Your task to perform on an android device: turn on translation in the chrome app Image 0: 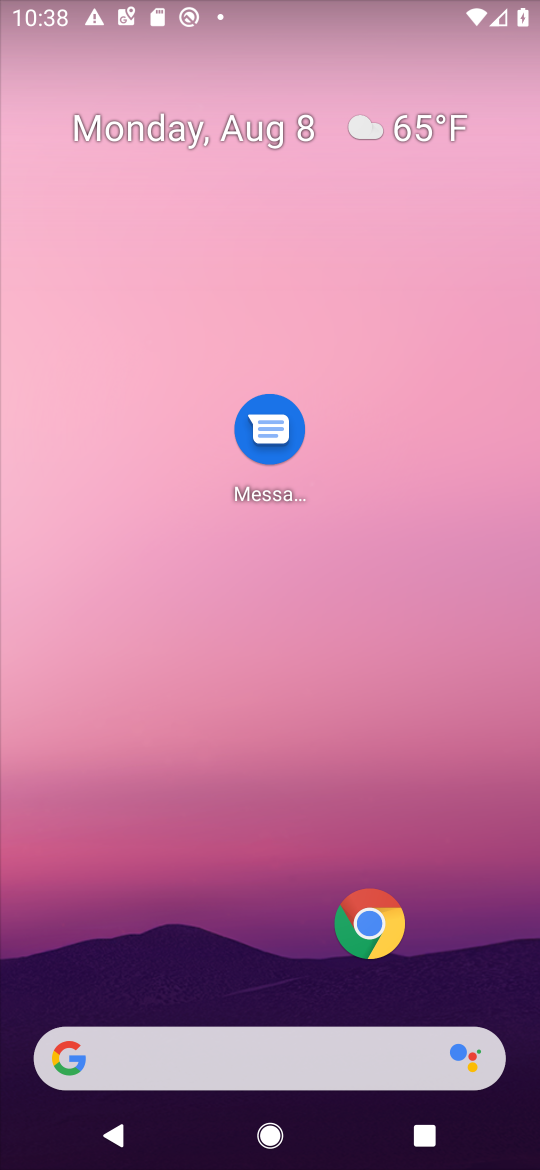
Step 0: click (384, 925)
Your task to perform on an android device: turn on translation in the chrome app Image 1: 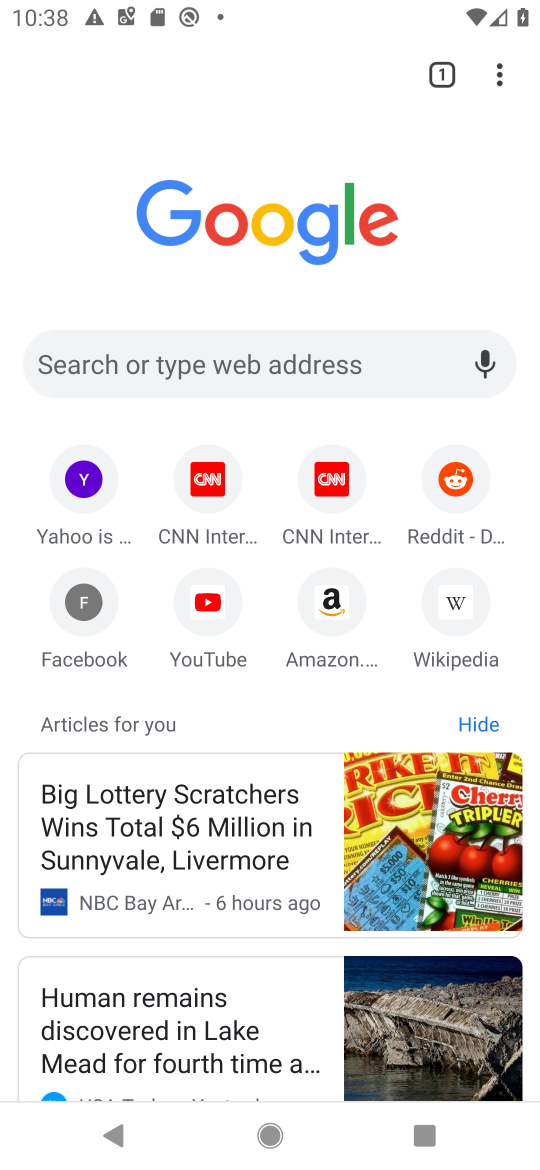
Step 1: click (510, 74)
Your task to perform on an android device: turn on translation in the chrome app Image 2: 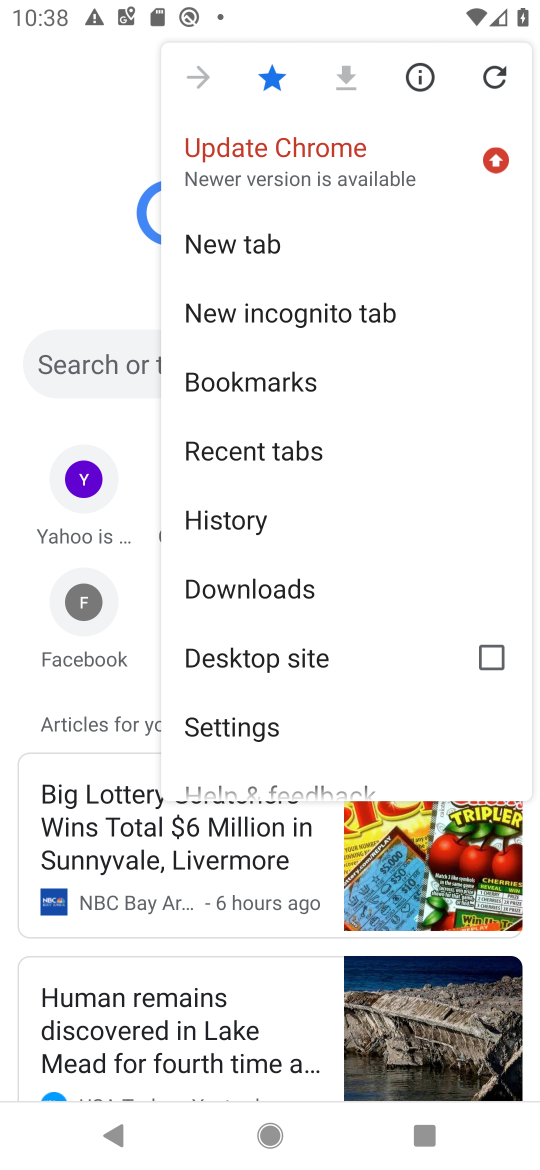
Step 2: click (220, 710)
Your task to perform on an android device: turn on translation in the chrome app Image 3: 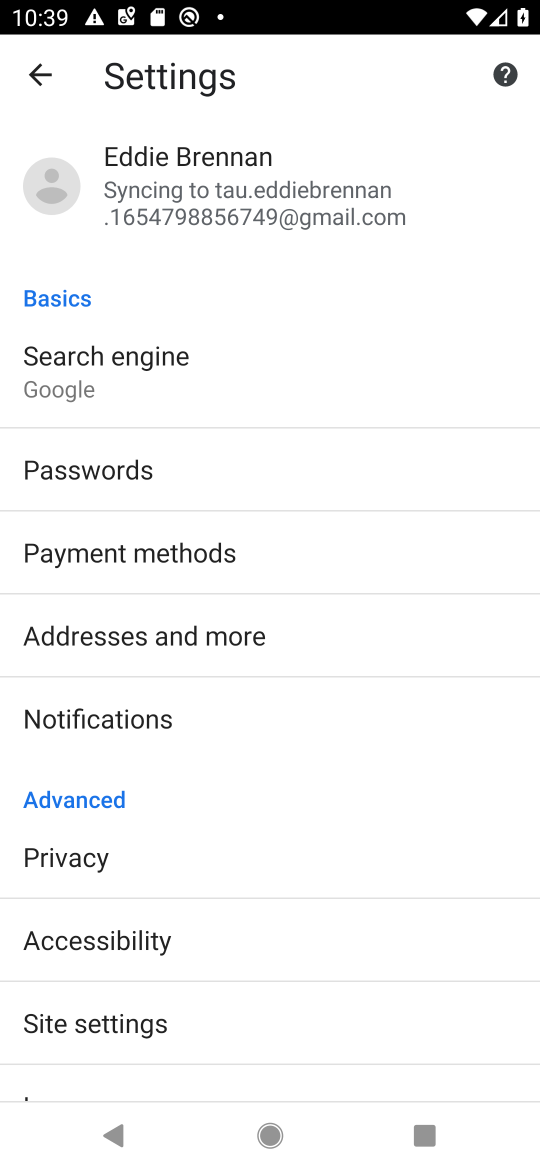
Step 3: drag from (349, 1028) to (364, 669)
Your task to perform on an android device: turn on translation in the chrome app Image 4: 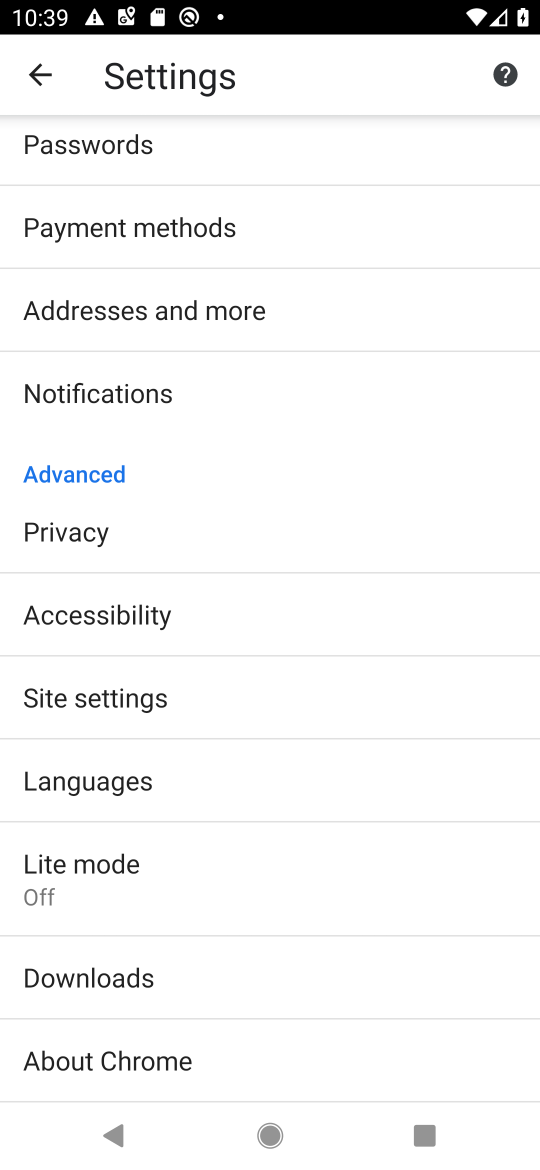
Step 4: click (74, 791)
Your task to perform on an android device: turn on translation in the chrome app Image 5: 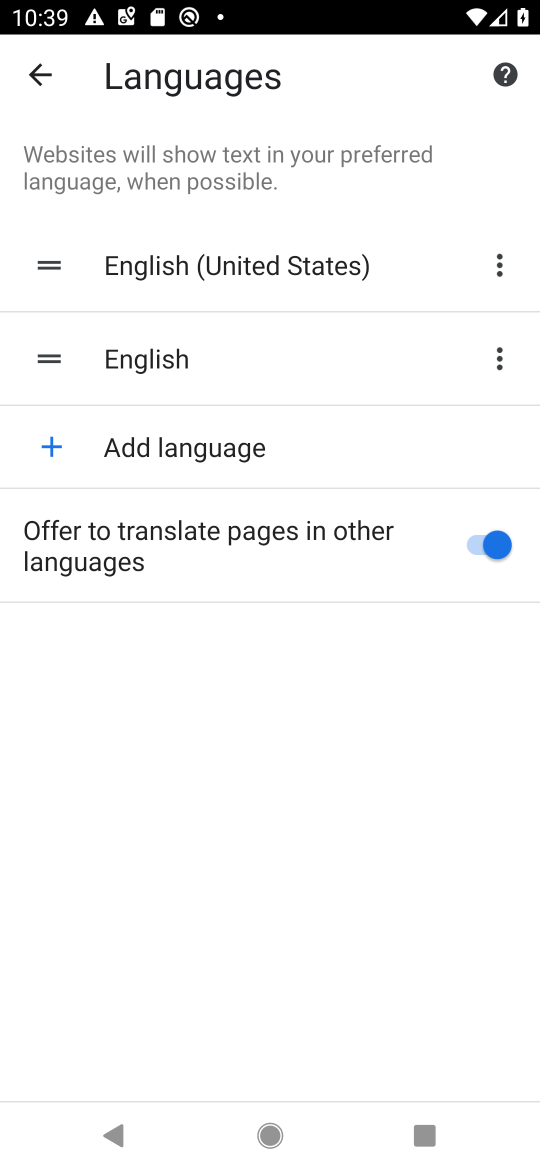
Step 5: task complete